Your task to perform on an android device: Clear all items from cart on walmart. Search for logitech g910 on walmart, select the first entry, add it to the cart, then select checkout. Image 0: 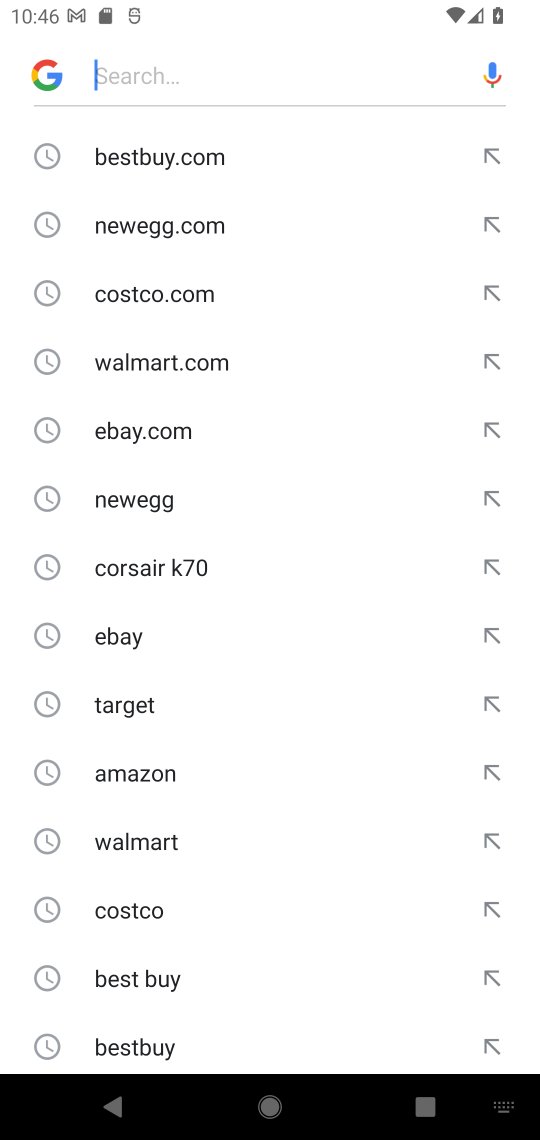
Step 0: press home button
Your task to perform on an android device: Clear all items from cart on walmart. Search for logitech g910 on walmart, select the first entry, add it to the cart, then select checkout. Image 1: 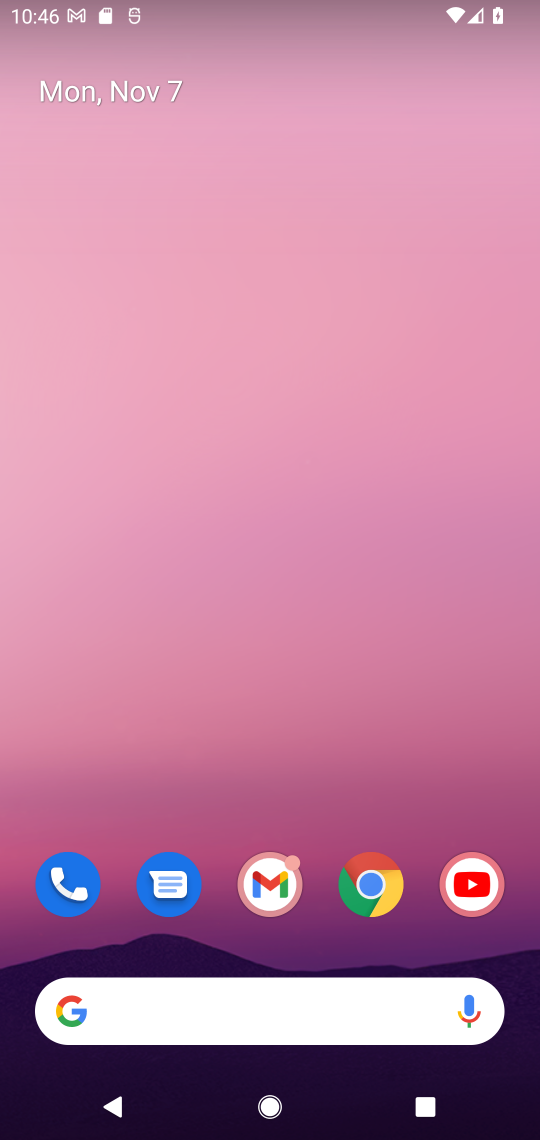
Step 1: click (361, 882)
Your task to perform on an android device: Clear all items from cart on walmart. Search for logitech g910 on walmart, select the first entry, add it to the cart, then select checkout. Image 2: 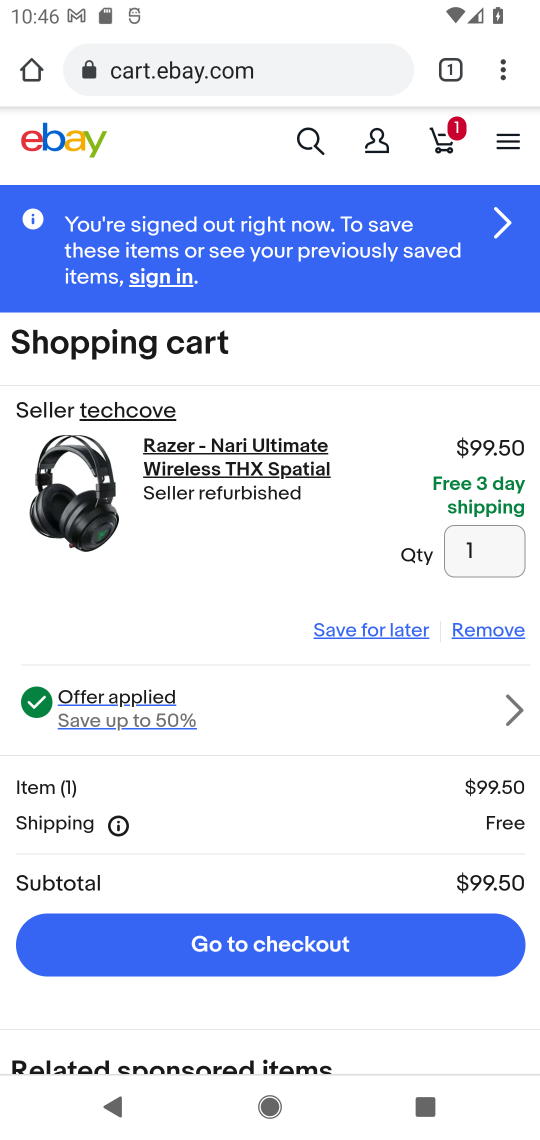
Step 2: click (24, 67)
Your task to perform on an android device: Clear all items from cart on walmart. Search for logitech g910 on walmart, select the first entry, add it to the cart, then select checkout. Image 3: 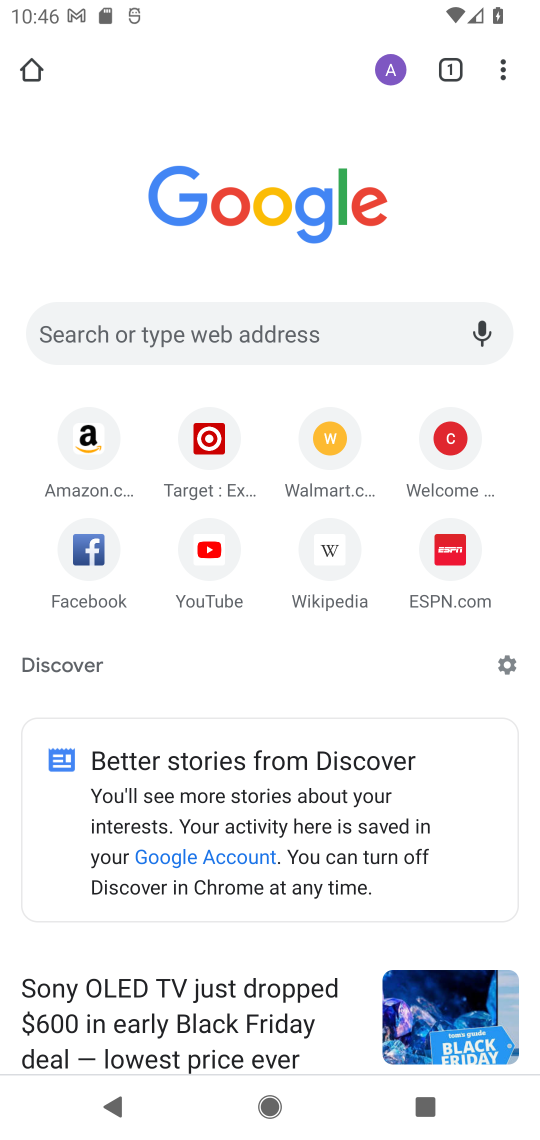
Step 3: click (225, 323)
Your task to perform on an android device: Clear all items from cart on walmart. Search for logitech g910 on walmart, select the first entry, add it to the cart, then select checkout. Image 4: 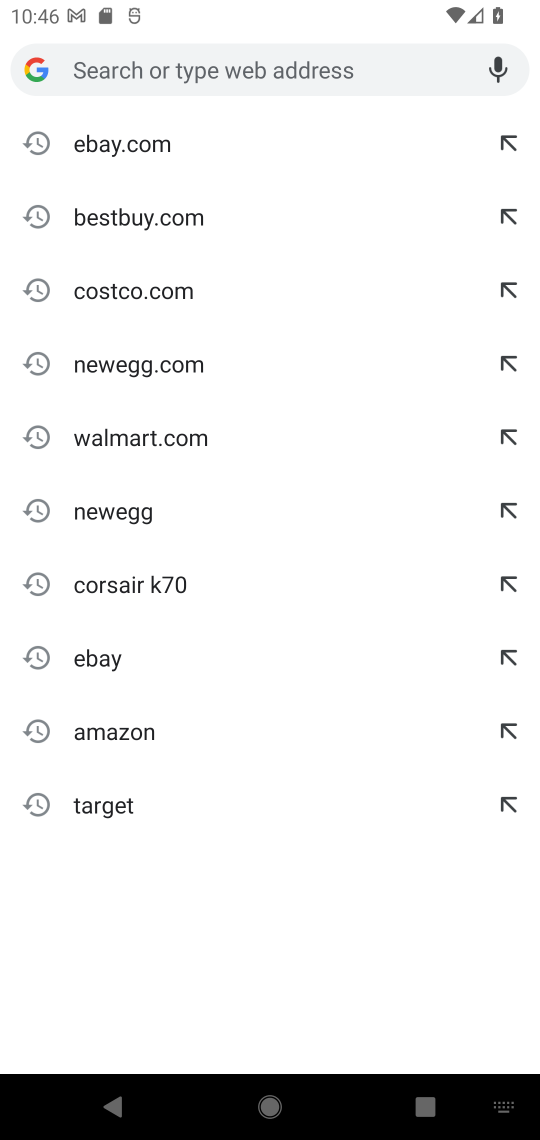
Step 4: click (189, 444)
Your task to perform on an android device: Clear all items from cart on walmart. Search for logitech g910 on walmart, select the first entry, add it to the cart, then select checkout. Image 5: 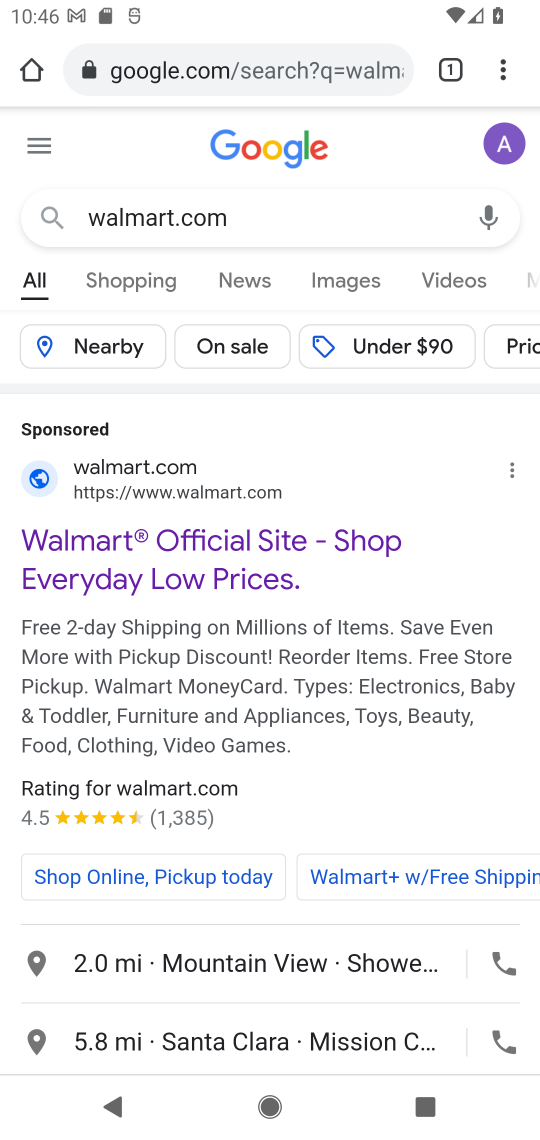
Step 5: click (232, 482)
Your task to perform on an android device: Clear all items from cart on walmart. Search for logitech g910 on walmart, select the first entry, add it to the cart, then select checkout. Image 6: 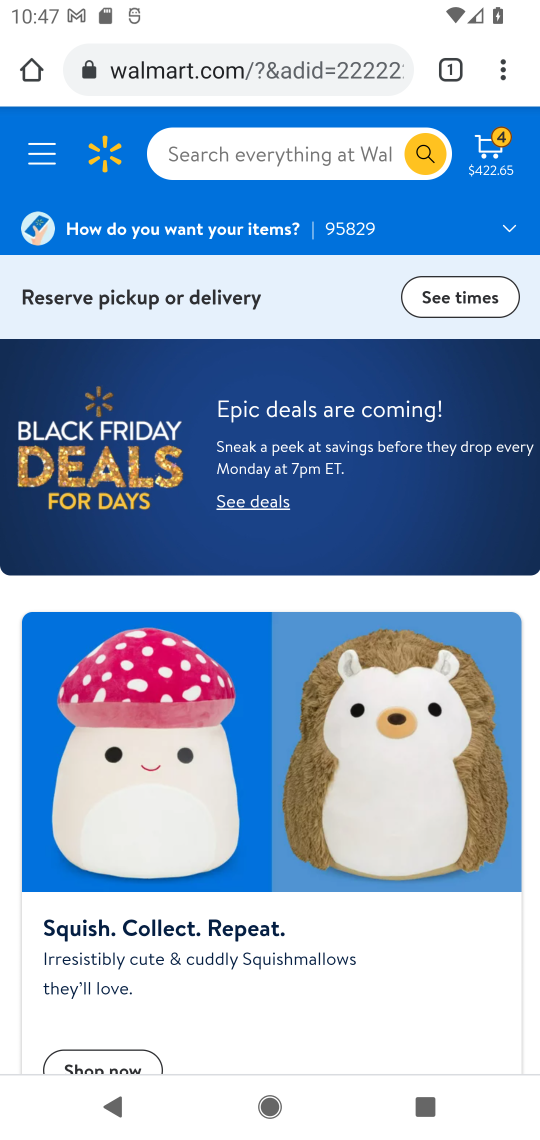
Step 6: click (490, 142)
Your task to perform on an android device: Clear all items from cart on walmart. Search for logitech g910 on walmart, select the first entry, add it to the cart, then select checkout. Image 7: 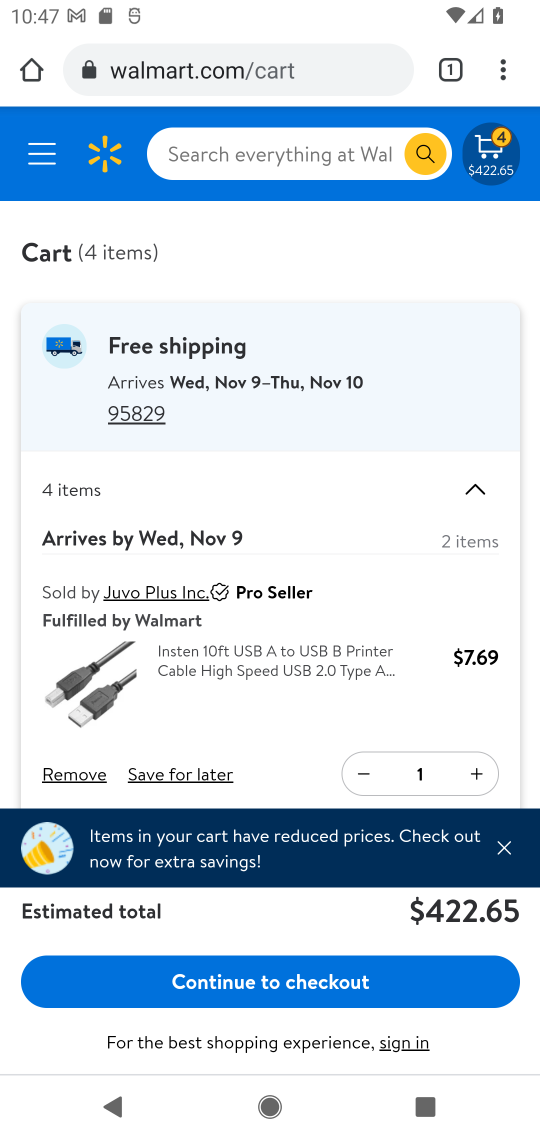
Step 7: click (84, 769)
Your task to perform on an android device: Clear all items from cart on walmart. Search for logitech g910 on walmart, select the first entry, add it to the cart, then select checkout. Image 8: 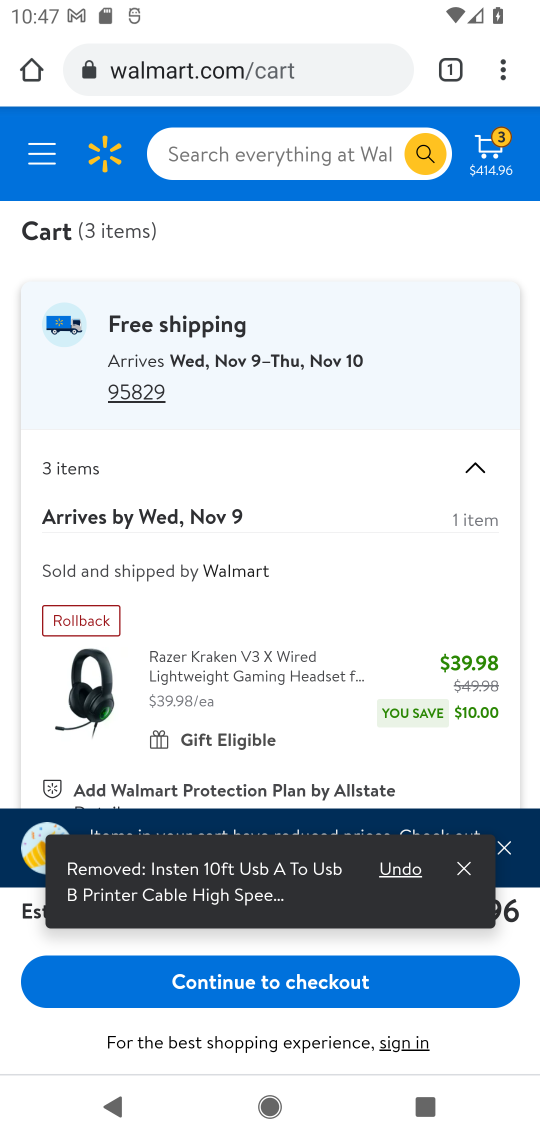
Step 8: drag from (364, 706) to (398, 237)
Your task to perform on an android device: Clear all items from cart on walmart. Search for logitech g910 on walmart, select the first entry, add it to the cart, then select checkout. Image 9: 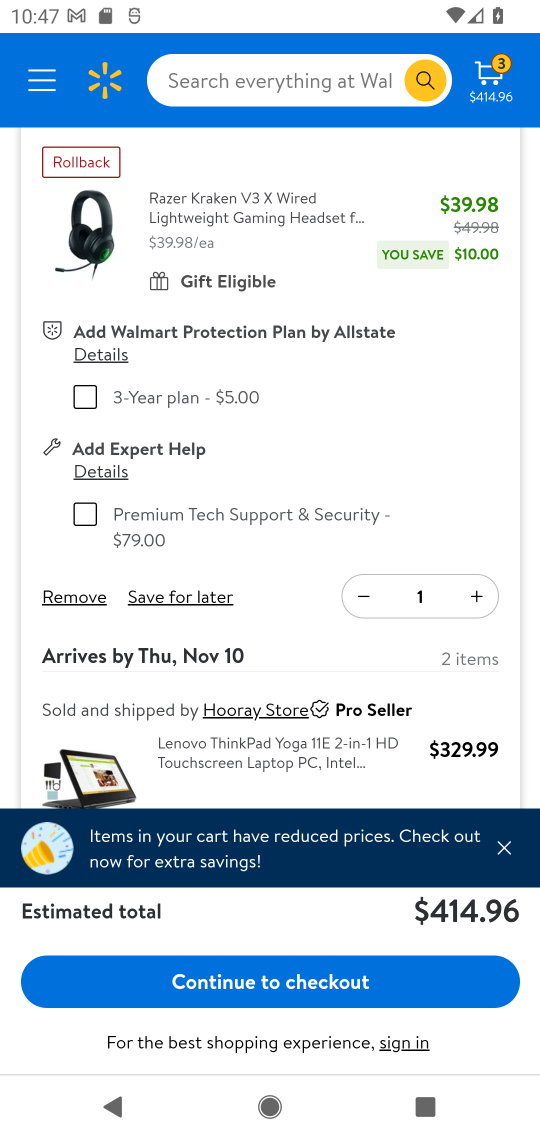
Step 9: click (85, 589)
Your task to perform on an android device: Clear all items from cart on walmart. Search for logitech g910 on walmart, select the first entry, add it to the cart, then select checkout. Image 10: 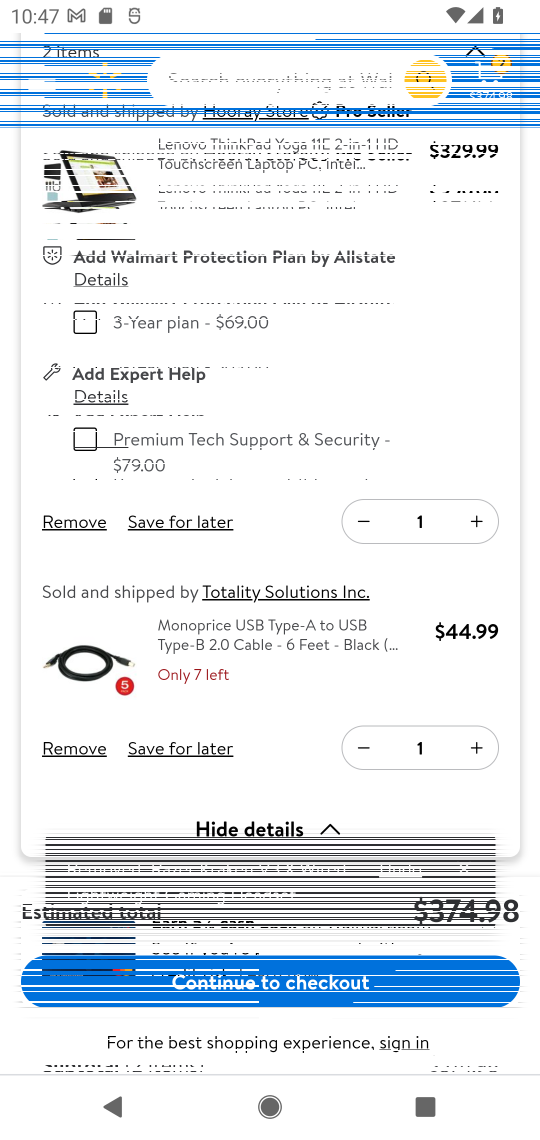
Step 10: click (93, 520)
Your task to perform on an android device: Clear all items from cart on walmart. Search for logitech g910 on walmart, select the first entry, add it to the cart, then select checkout. Image 11: 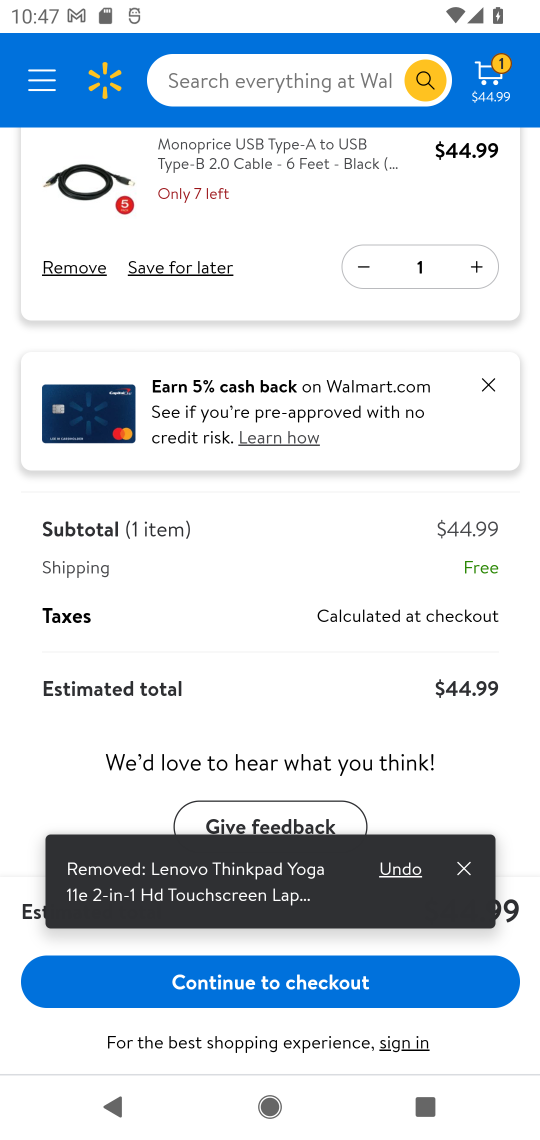
Step 11: drag from (292, 617) to (416, 894)
Your task to perform on an android device: Clear all items from cart on walmart. Search for logitech g910 on walmart, select the first entry, add it to the cart, then select checkout. Image 12: 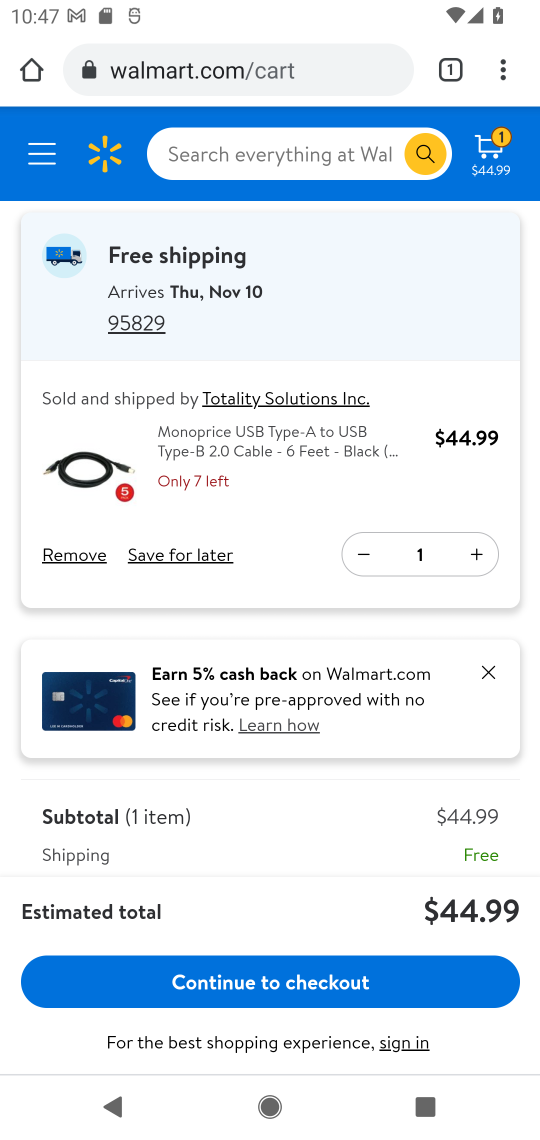
Step 12: click (73, 548)
Your task to perform on an android device: Clear all items from cart on walmart. Search for logitech g910 on walmart, select the first entry, add it to the cart, then select checkout. Image 13: 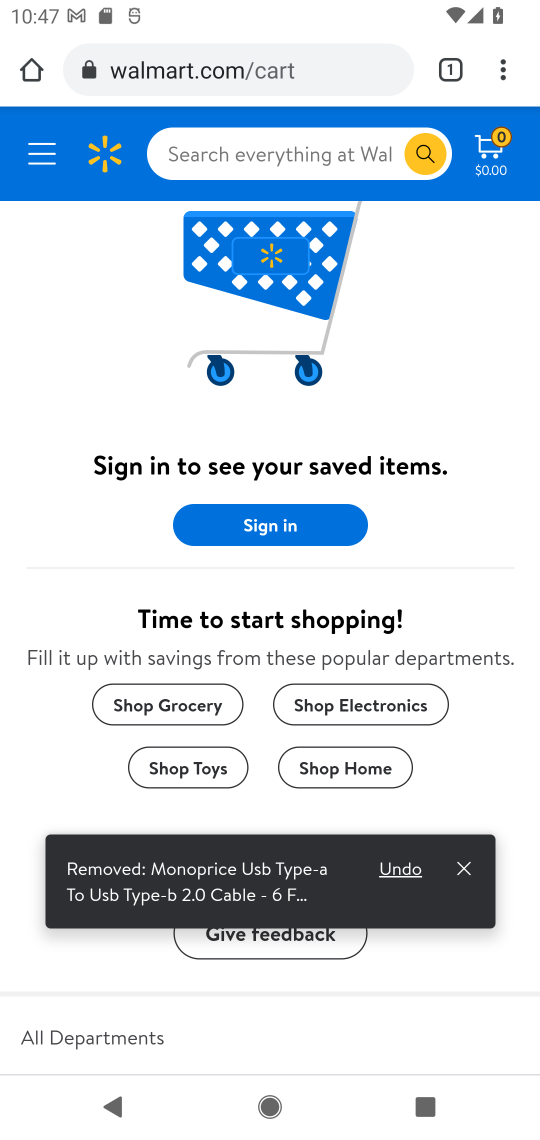
Step 13: click (278, 153)
Your task to perform on an android device: Clear all items from cart on walmart. Search for logitech g910 on walmart, select the first entry, add it to the cart, then select checkout. Image 14: 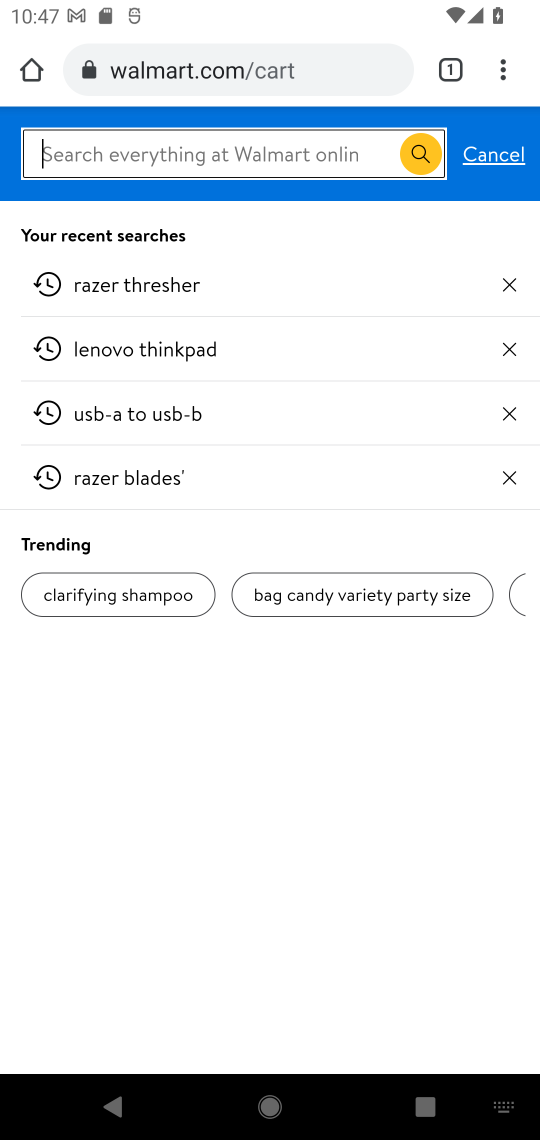
Step 14: type " logitech g910"
Your task to perform on an android device: Clear all items from cart on walmart. Search for logitech g910 on walmart, select the first entry, add it to the cart, then select checkout. Image 15: 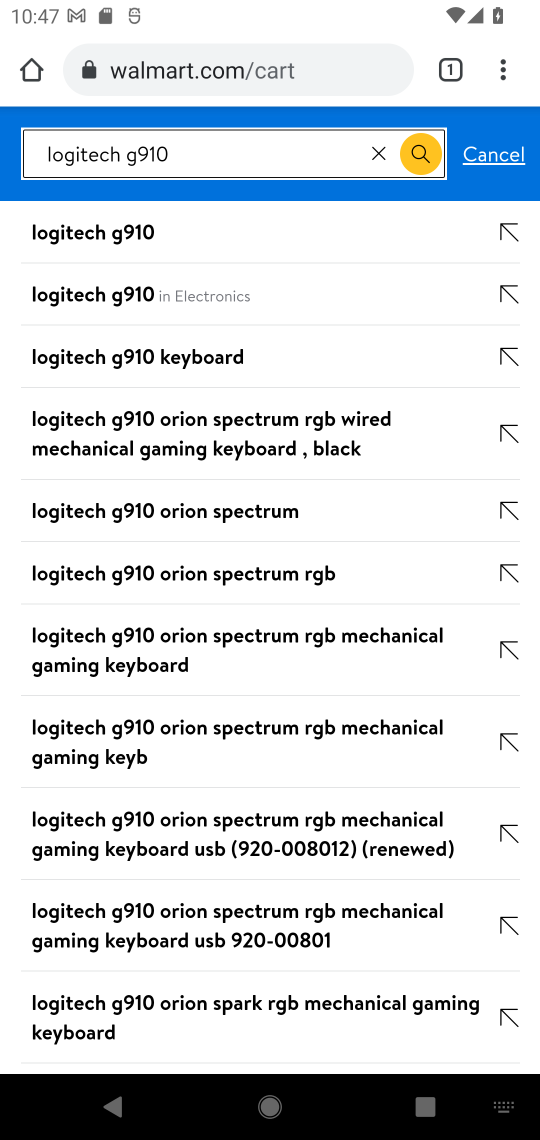
Step 15: click (123, 236)
Your task to perform on an android device: Clear all items from cart on walmart. Search for logitech g910 on walmart, select the first entry, add it to the cart, then select checkout. Image 16: 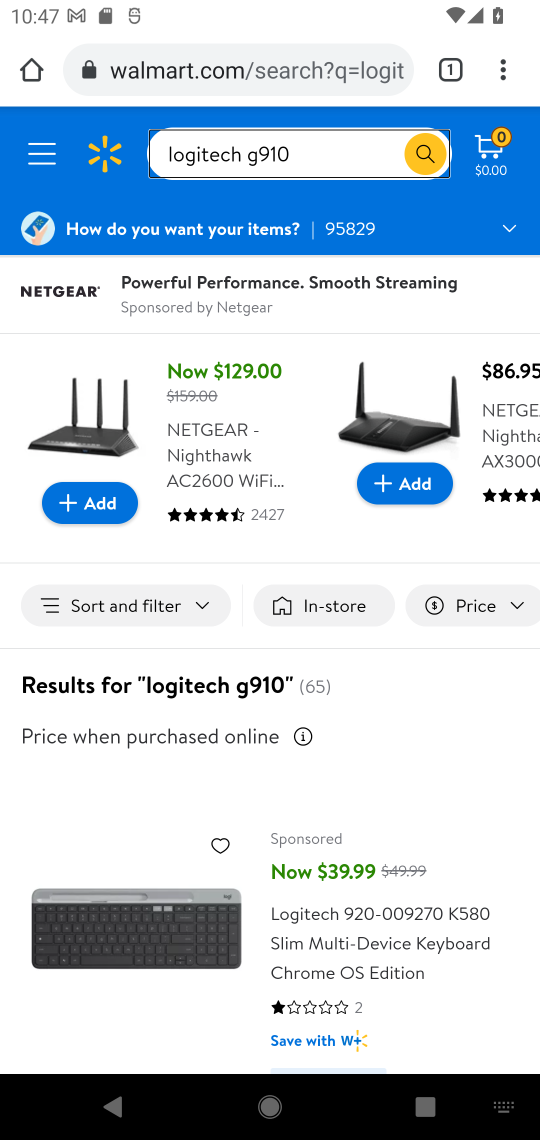
Step 16: drag from (375, 923) to (396, 311)
Your task to perform on an android device: Clear all items from cart on walmart. Search for logitech g910 on walmart, select the first entry, add it to the cart, then select checkout. Image 17: 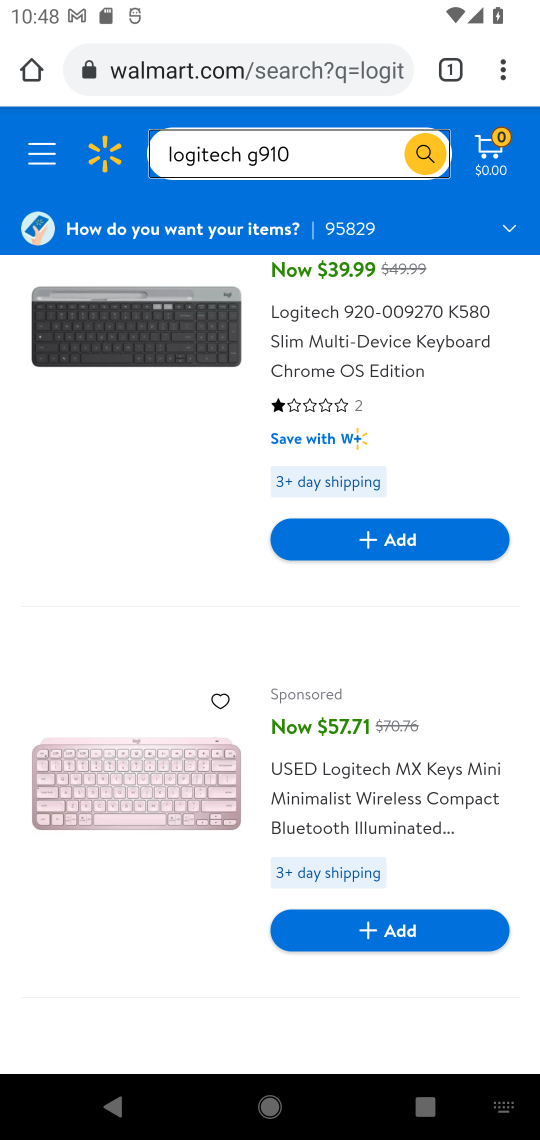
Step 17: drag from (427, 729) to (423, 255)
Your task to perform on an android device: Clear all items from cart on walmart. Search for logitech g910 on walmart, select the first entry, add it to the cart, then select checkout. Image 18: 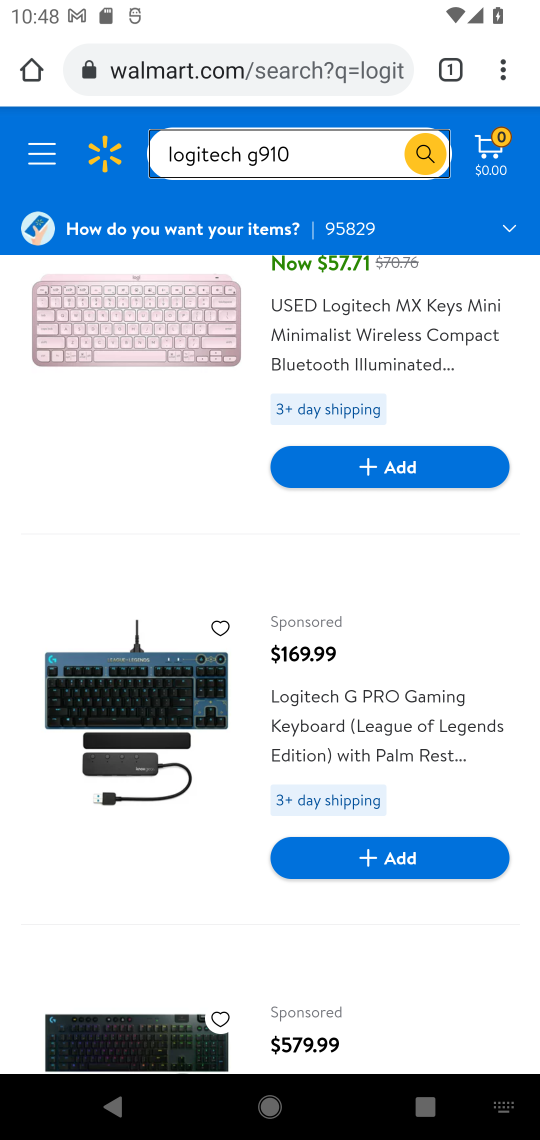
Step 18: drag from (409, 660) to (426, 310)
Your task to perform on an android device: Clear all items from cart on walmart. Search for logitech g910 on walmart, select the first entry, add it to the cart, then select checkout. Image 19: 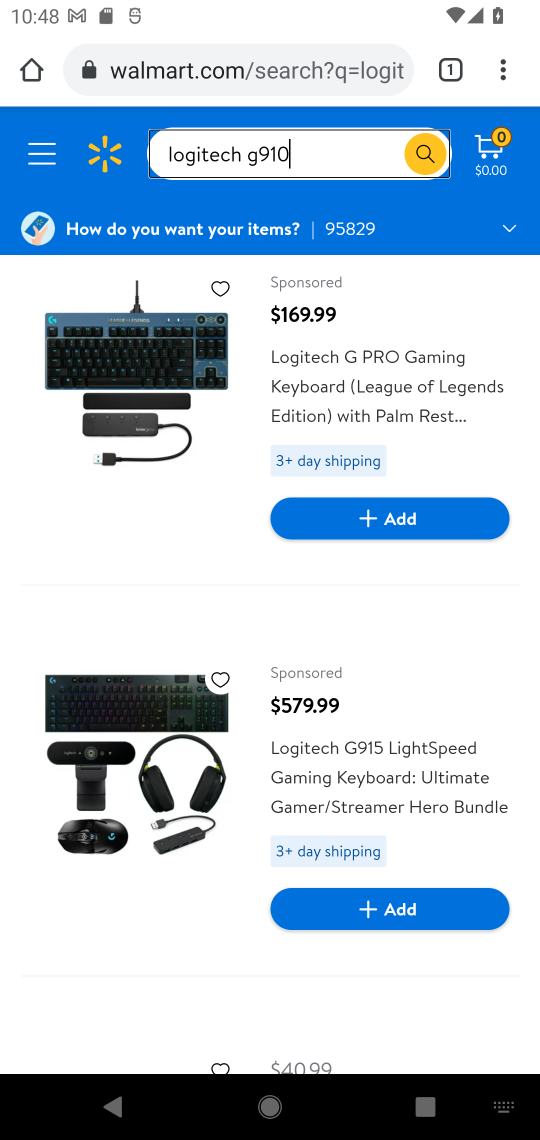
Step 19: drag from (415, 645) to (424, 343)
Your task to perform on an android device: Clear all items from cart on walmart. Search for logitech g910 on walmart, select the first entry, add it to the cart, then select checkout. Image 20: 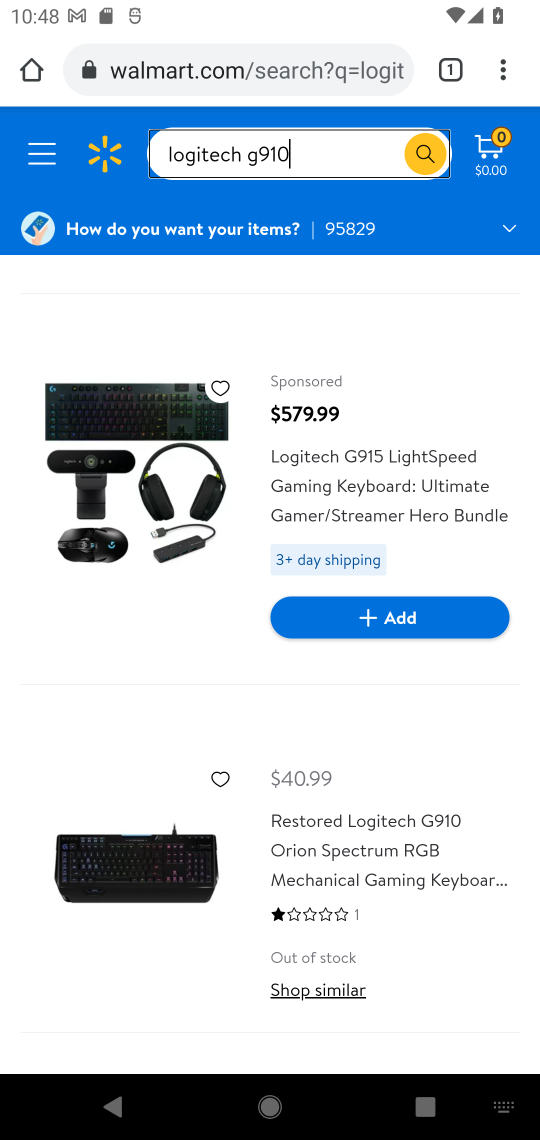
Step 20: click (137, 860)
Your task to perform on an android device: Clear all items from cart on walmart. Search for logitech g910 on walmart, select the first entry, add it to the cart, then select checkout. Image 21: 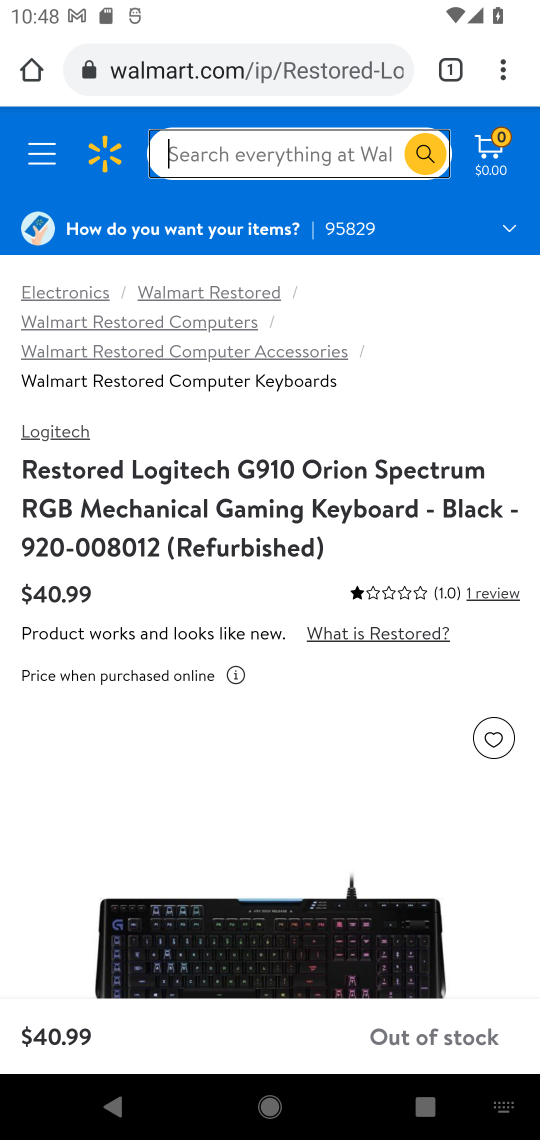
Step 21: drag from (369, 806) to (472, 245)
Your task to perform on an android device: Clear all items from cart on walmart. Search for logitech g910 on walmart, select the first entry, add it to the cart, then select checkout. Image 22: 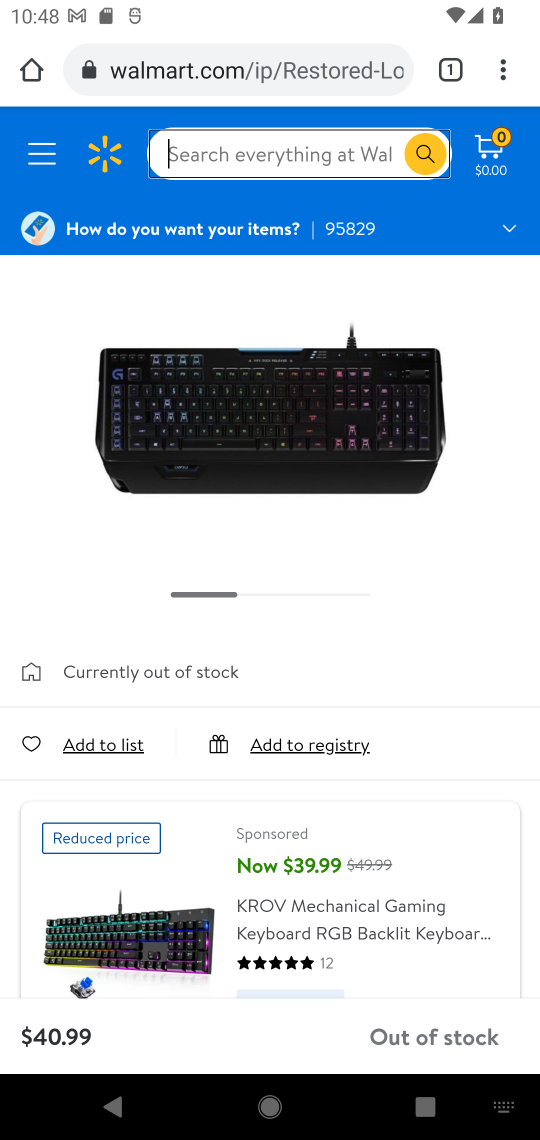
Step 22: drag from (463, 838) to (449, 333)
Your task to perform on an android device: Clear all items from cart on walmart. Search for logitech g910 on walmart, select the first entry, add it to the cart, then select checkout. Image 23: 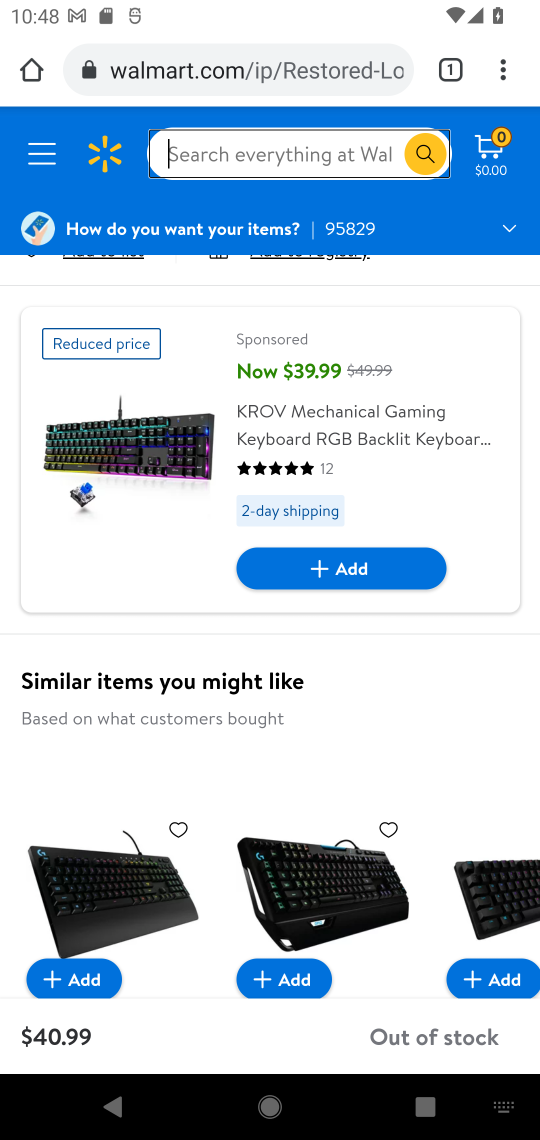
Step 23: drag from (422, 713) to (525, 277)
Your task to perform on an android device: Clear all items from cart on walmart. Search for logitech g910 on walmart, select the first entry, add it to the cart, then select checkout. Image 24: 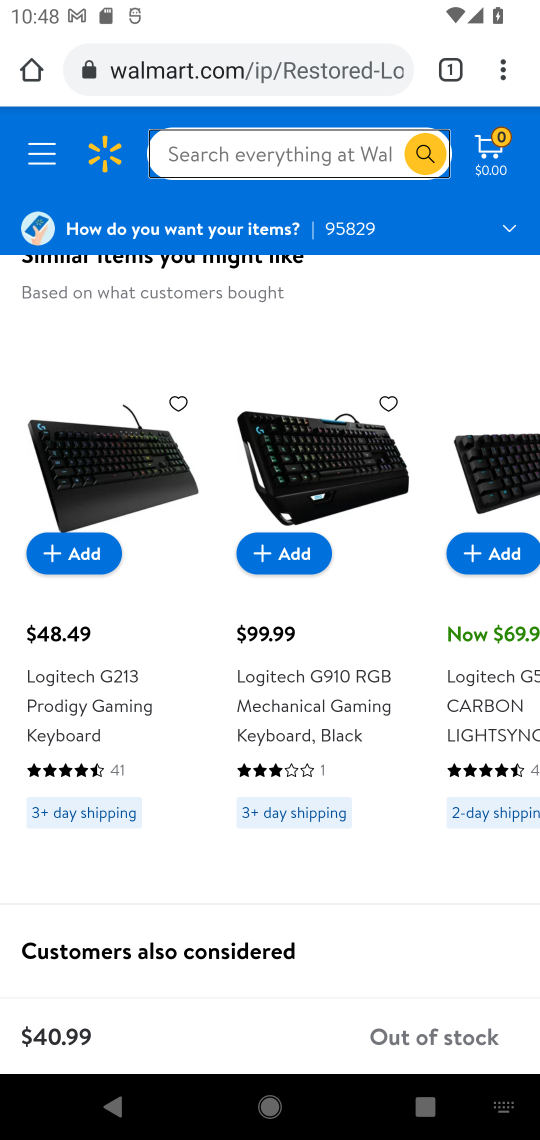
Step 24: press back button
Your task to perform on an android device: Clear all items from cart on walmart. Search for logitech g910 on walmart, select the first entry, add it to the cart, then select checkout. Image 25: 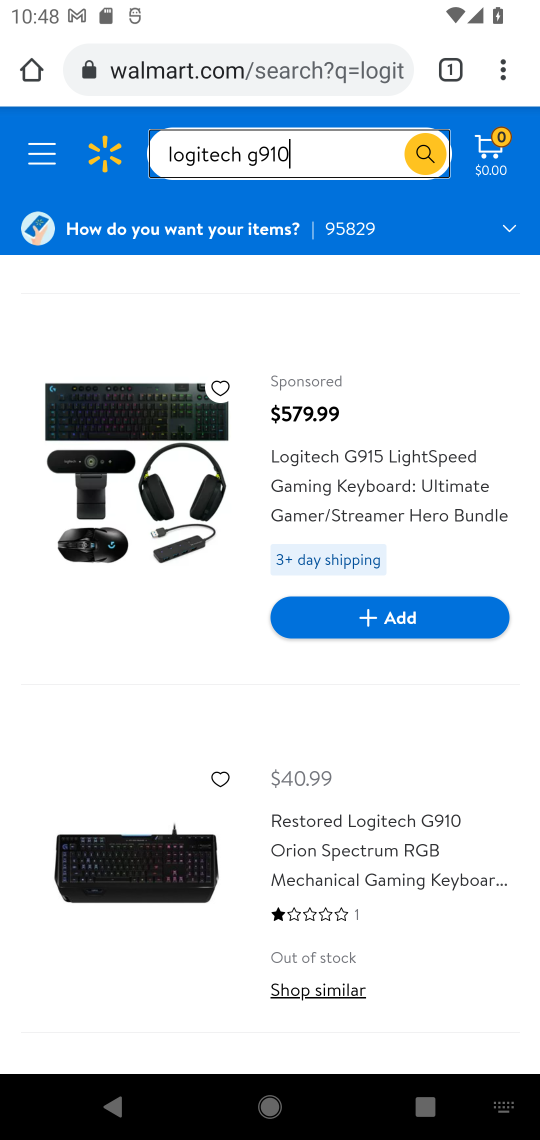
Step 25: drag from (440, 758) to (498, 342)
Your task to perform on an android device: Clear all items from cart on walmart. Search for logitech g910 on walmart, select the first entry, add it to the cart, then select checkout. Image 26: 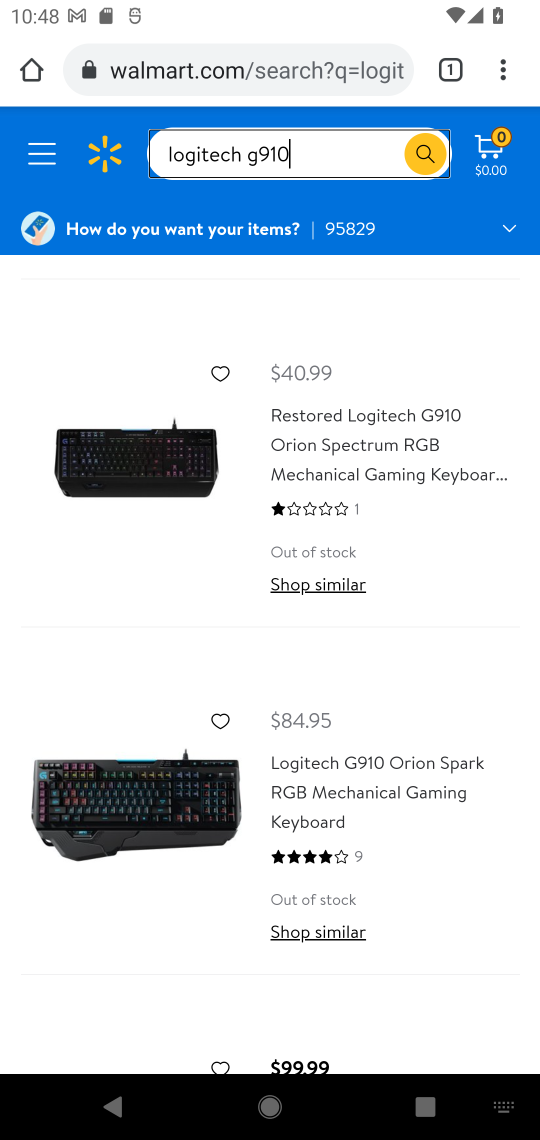
Step 26: click (171, 810)
Your task to perform on an android device: Clear all items from cart on walmart. Search for logitech g910 on walmart, select the first entry, add it to the cart, then select checkout. Image 27: 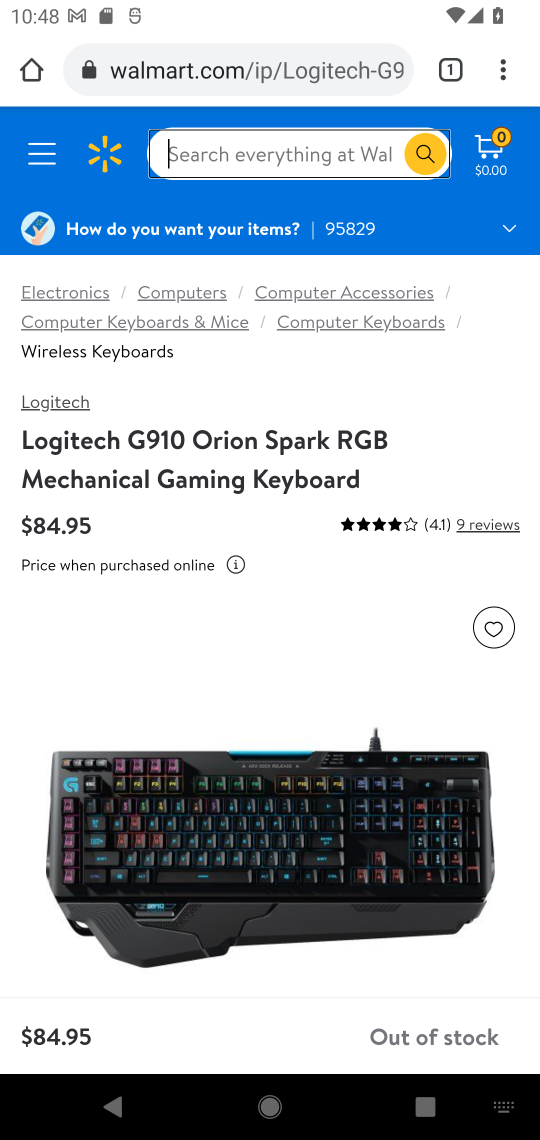
Step 27: drag from (437, 841) to (418, 272)
Your task to perform on an android device: Clear all items from cart on walmart. Search for logitech g910 on walmart, select the first entry, add it to the cart, then select checkout. Image 28: 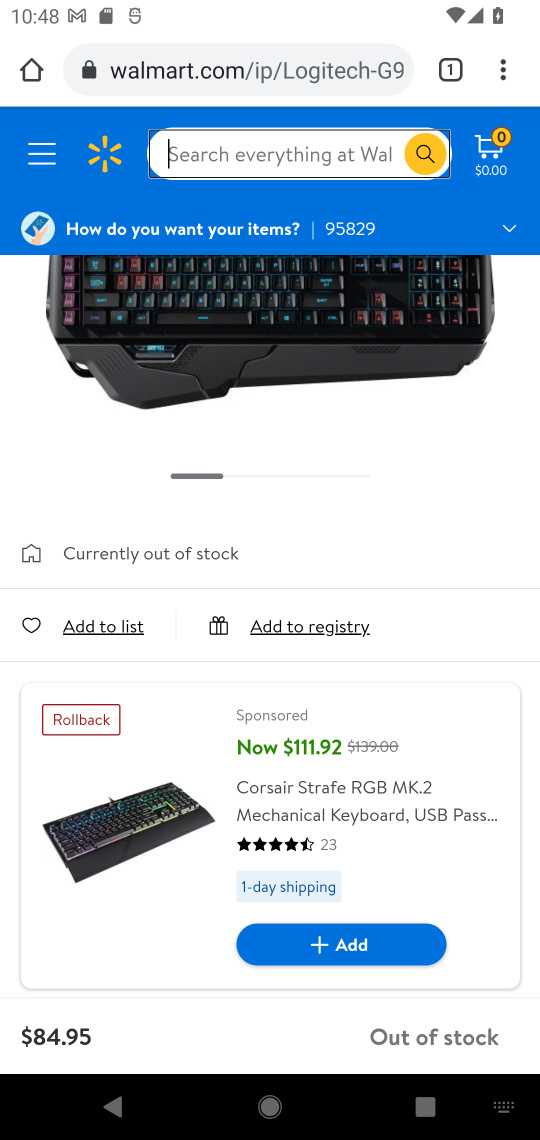
Step 28: press back button
Your task to perform on an android device: Clear all items from cart on walmart. Search for logitech g910 on walmart, select the first entry, add it to the cart, then select checkout. Image 29: 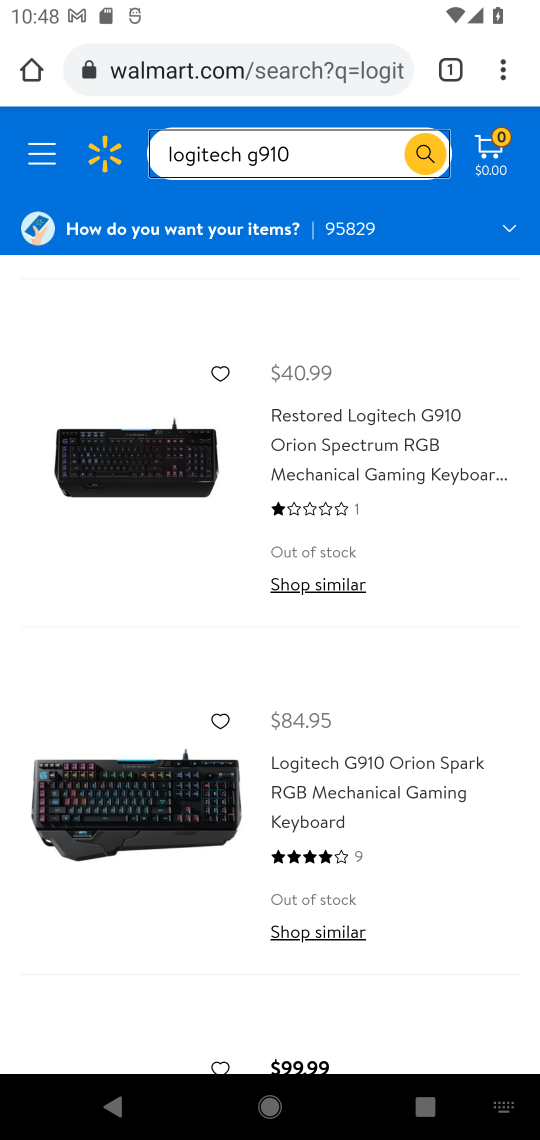
Step 29: drag from (377, 812) to (405, 391)
Your task to perform on an android device: Clear all items from cart on walmart. Search for logitech g910 on walmart, select the first entry, add it to the cart, then select checkout. Image 30: 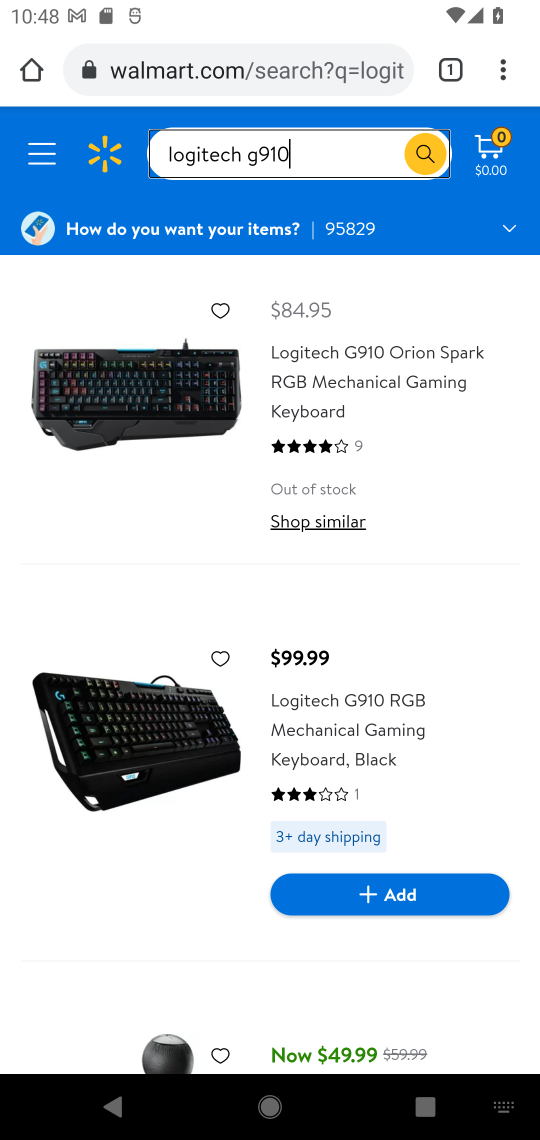
Step 30: click (99, 719)
Your task to perform on an android device: Clear all items from cart on walmart. Search for logitech g910 on walmart, select the first entry, add it to the cart, then select checkout. Image 31: 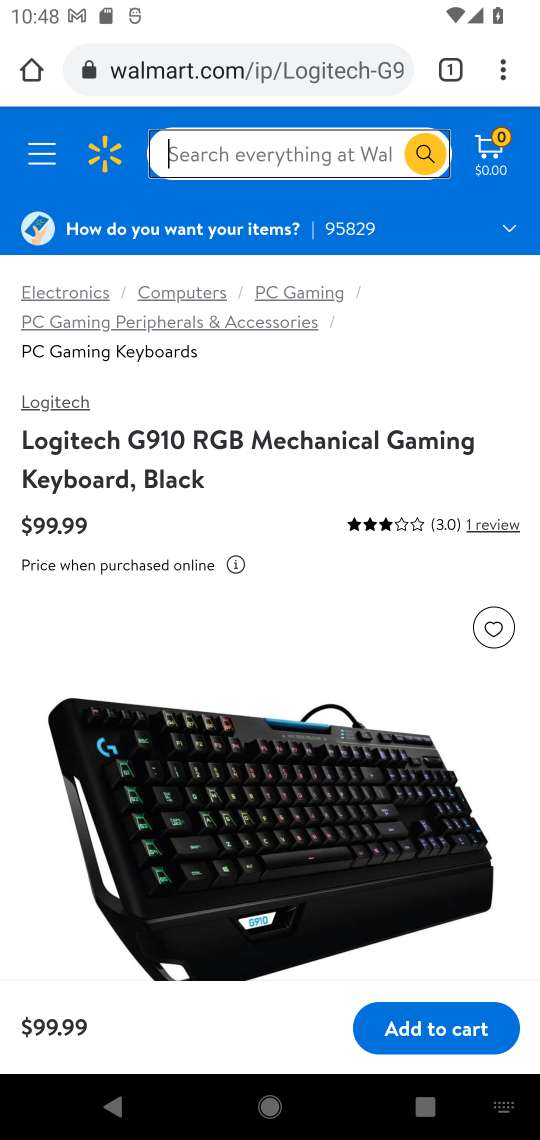
Step 31: click (442, 1028)
Your task to perform on an android device: Clear all items from cart on walmart. Search for logitech g910 on walmart, select the first entry, add it to the cart, then select checkout. Image 32: 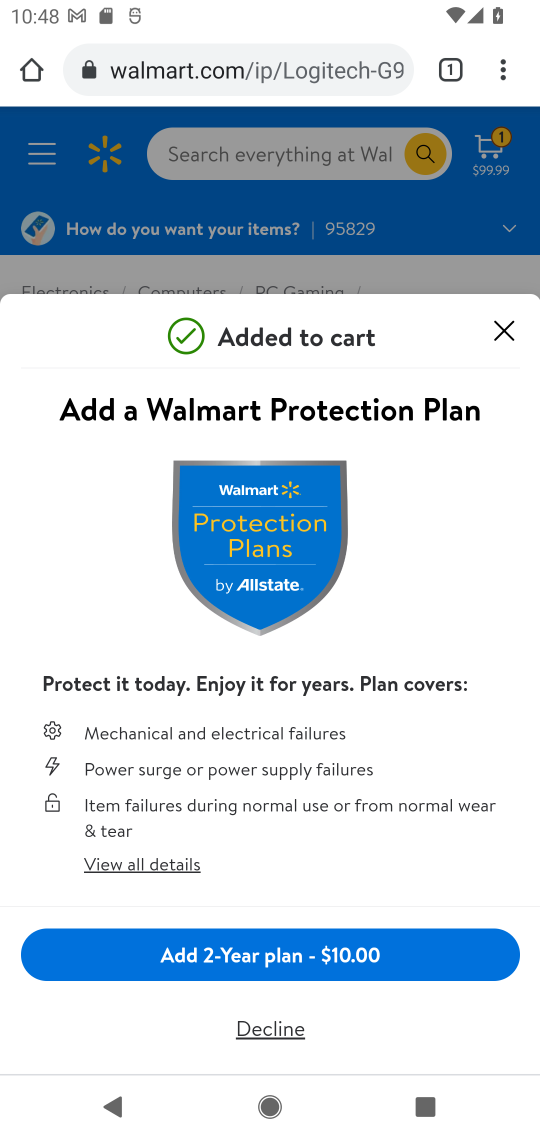
Step 32: click (509, 329)
Your task to perform on an android device: Clear all items from cart on walmart. Search for logitech g910 on walmart, select the first entry, add it to the cart, then select checkout. Image 33: 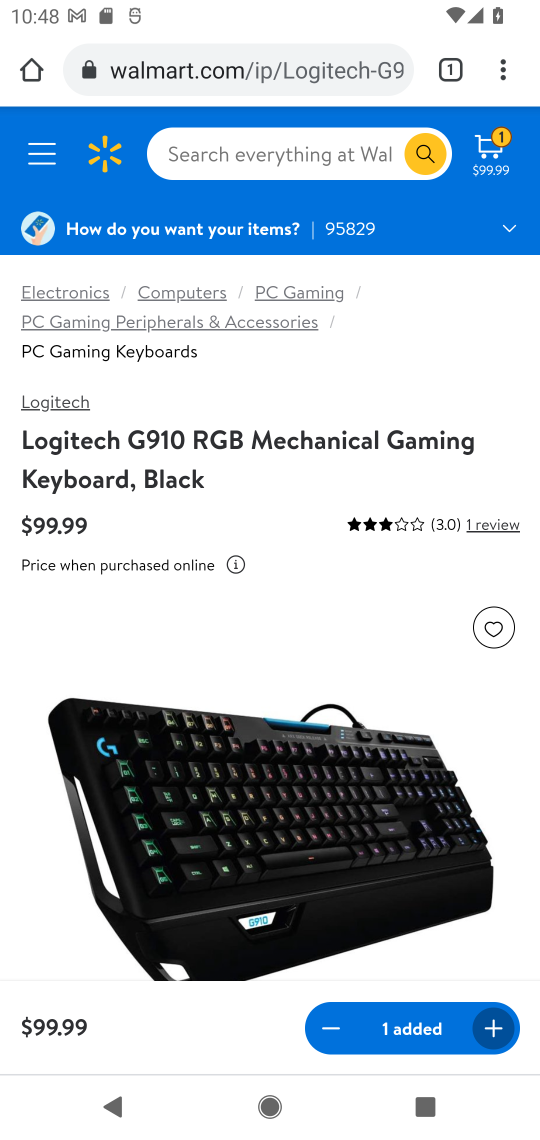
Step 33: task complete